Your task to perform on an android device: toggle location history Image 0: 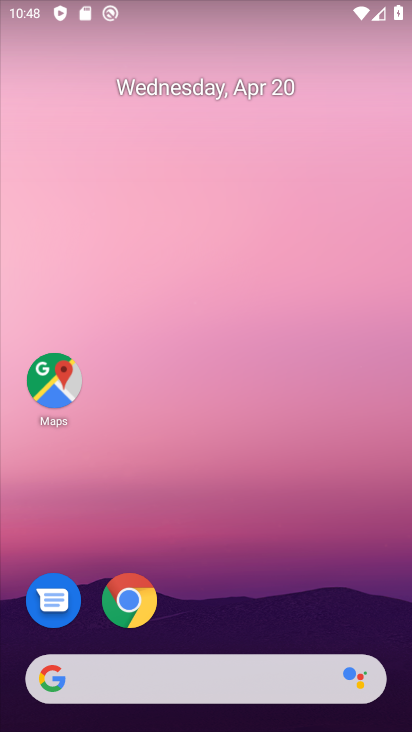
Step 0: click (52, 378)
Your task to perform on an android device: toggle location history Image 1: 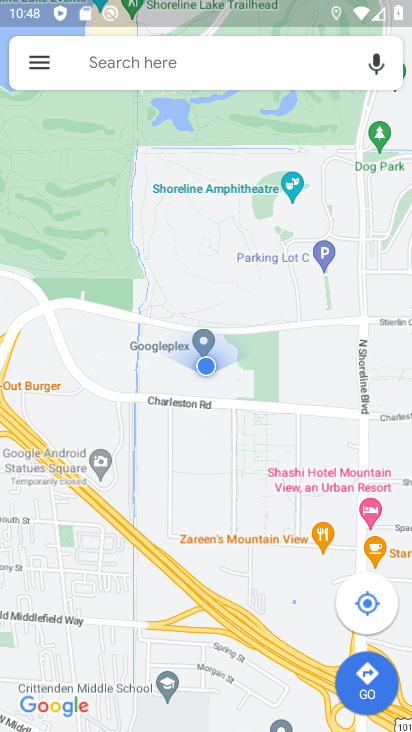
Step 1: click (45, 68)
Your task to perform on an android device: toggle location history Image 2: 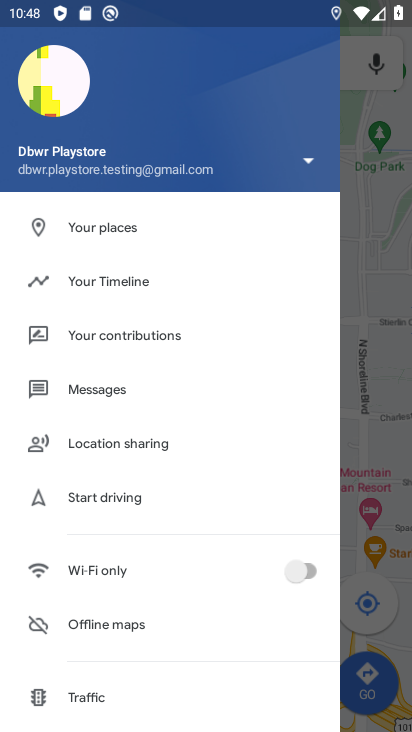
Step 2: click (117, 284)
Your task to perform on an android device: toggle location history Image 3: 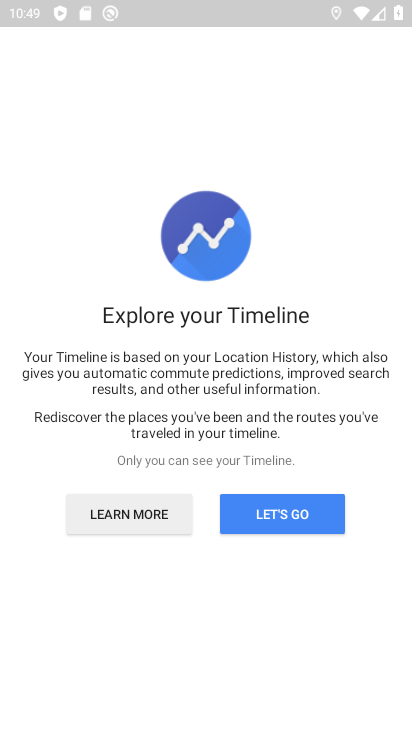
Step 3: click (280, 518)
Your task to perform on an android device: toggle location history Image 4: 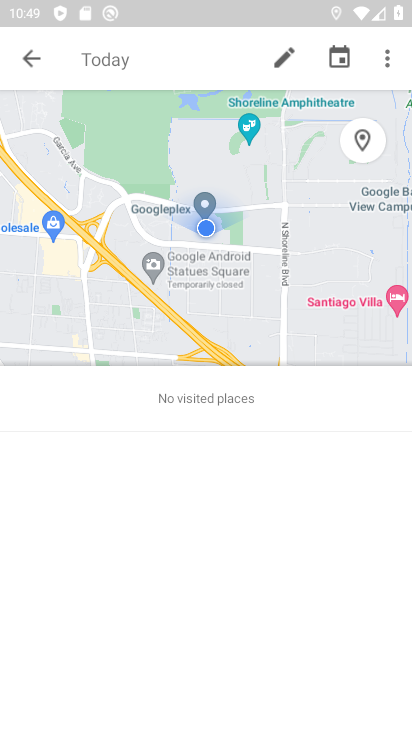
Step 4: click (386, 69)
Your task to perform on an android device: toggle location history Image 5: 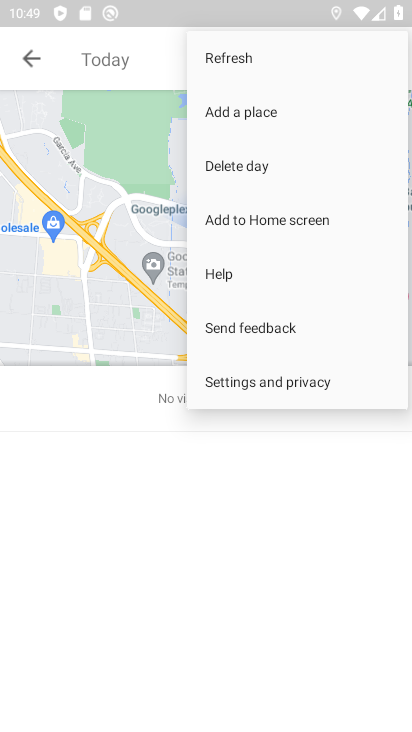
Step 5: click (263, 380)
Your task to perform on an android device: toggle location history Image 6: 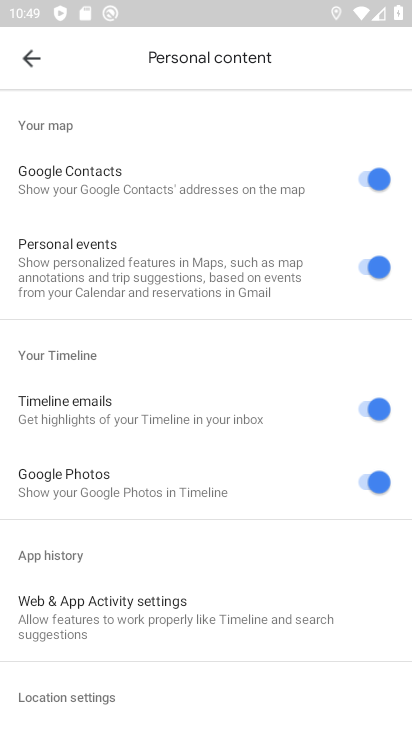
Step 6: drag from (260, 669) to (256, 262)
Your task to perform on an android device: toggle location history Image 7: 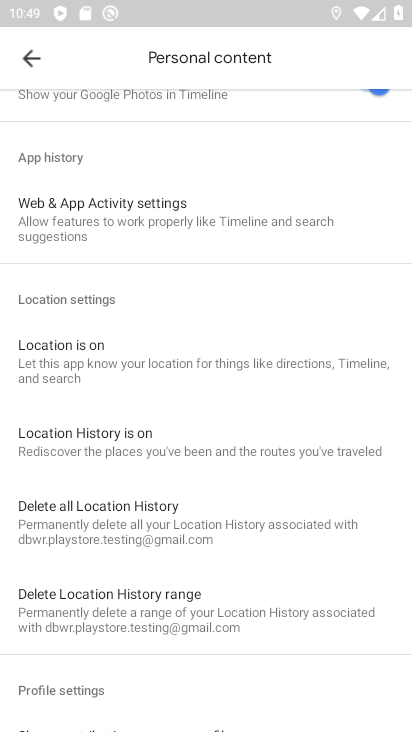
Step 7: click (198, 452)
Your task to perform on an android device: toggle location history Image 8: 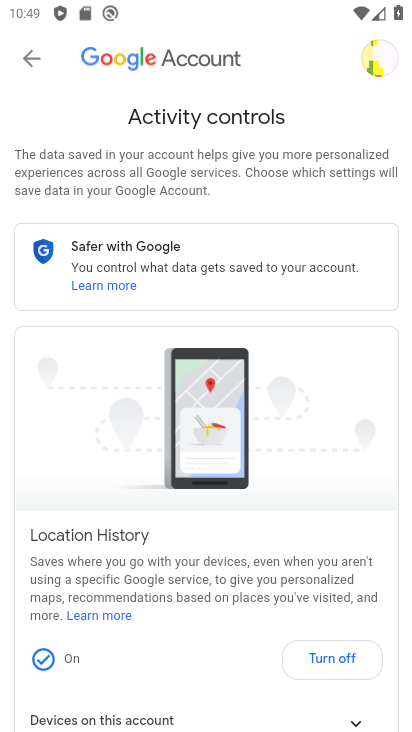
Step 8: click (344, 652)
Your task to perform on an android device: toggle location history Image 9: 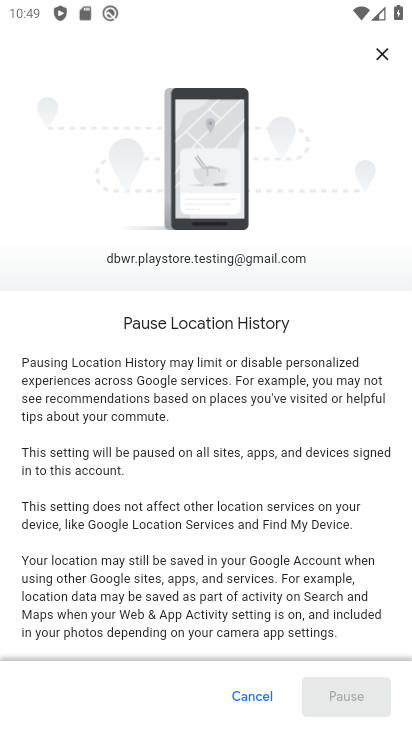
Step 9: drag from (285, 618) to (295, 293)
Your task to perform on an android device: toggle location history Image 10: 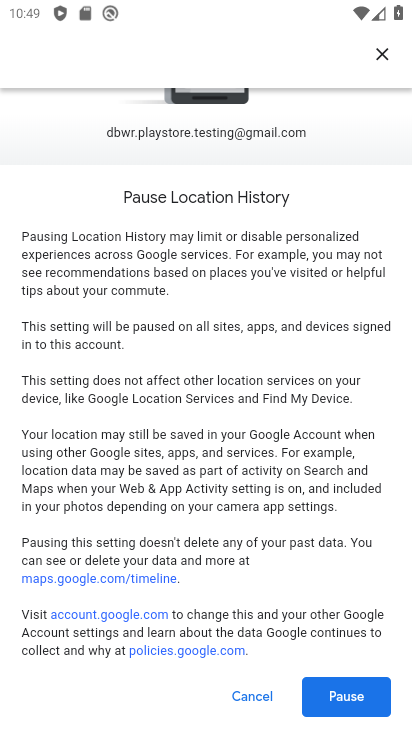
Step 10: click (340, 696)
Your task to perform on an android device: toggle location history Image 11: 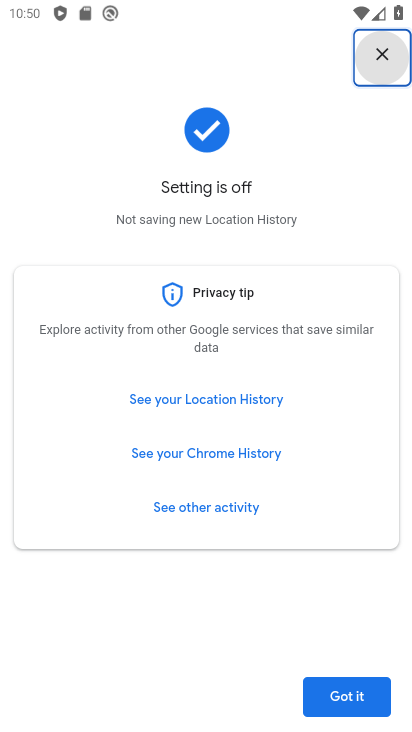
Step 11: click (347, 688)
Your task to perform on an android device: toggle location history Image 12: 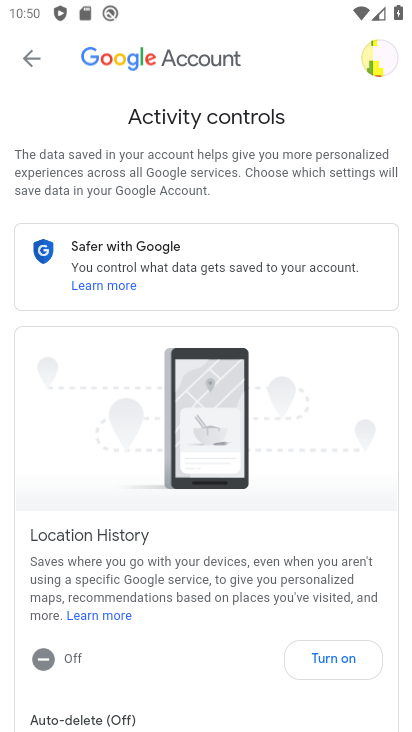
Step 12: task complete